Your task to perform on an android device: turn on sleep mode Image 0: 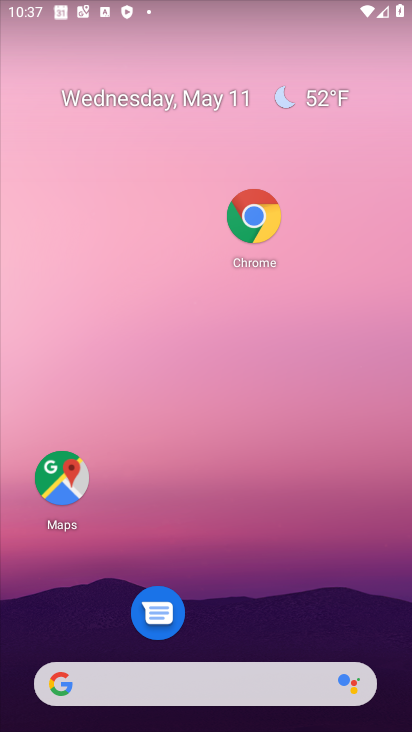
Step 0: drag from (274, 616) to (177, 30)
Your task to perform on an android device: turn on sleep mode Image 1: 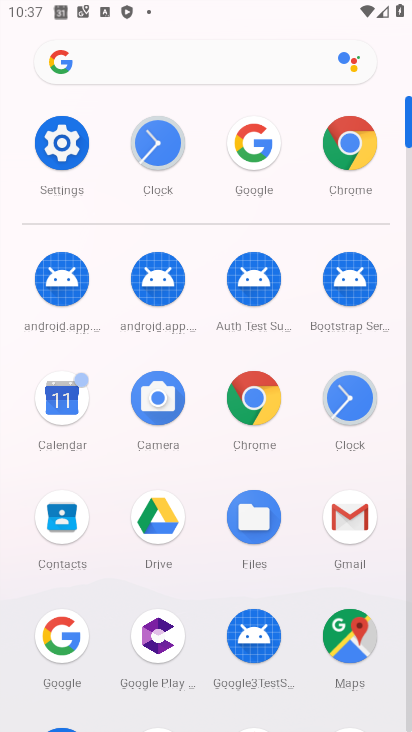
Step 1: click (55, 166)
Your task to perform on an android device: turn on sleep mode Image 2: 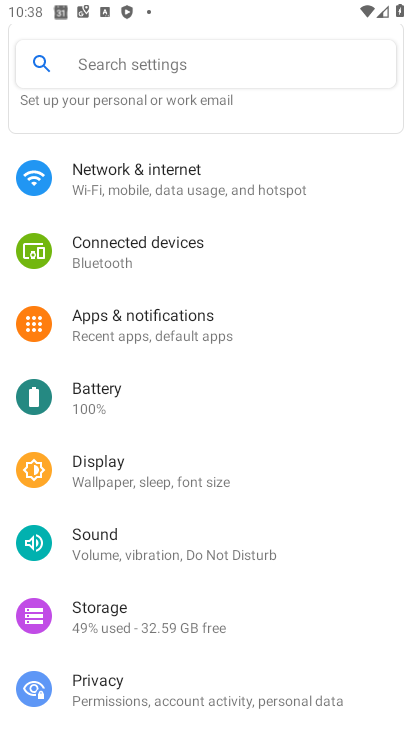
Step 2: task complete